Your task to perform on an android device: Go to CNN.com Image 0: 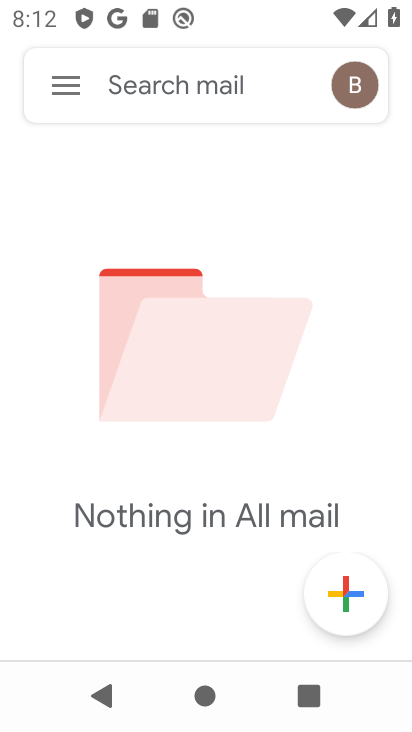
Step 0: press back button
Your task to perform on an android device: Go to CNN.com Image 1: 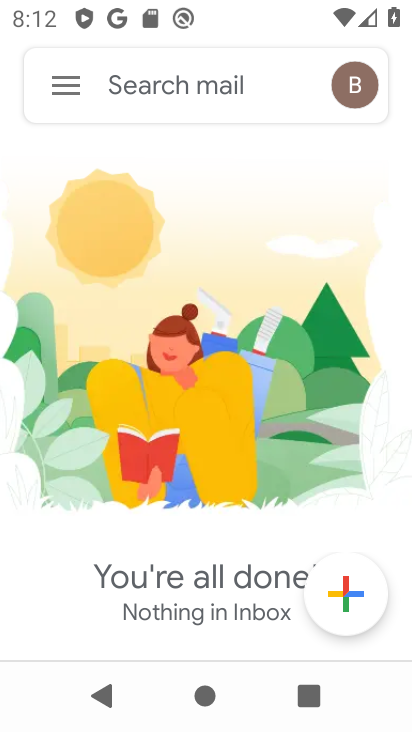
Step 1: press back button
Your task to perform on an android device: Go to CNN.com Image 2: 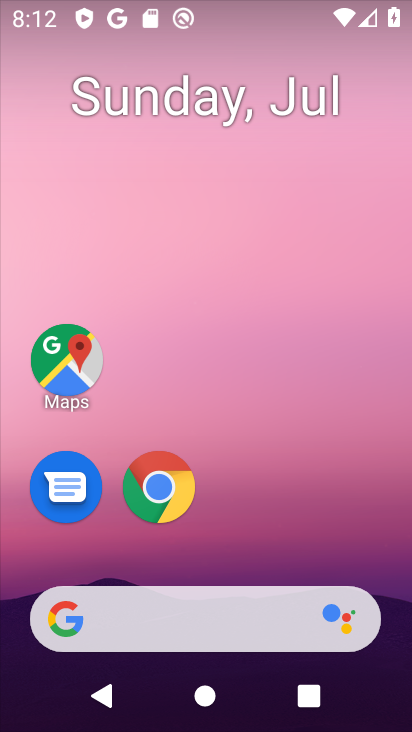
Step 2: click (153, 491)
Your task to perform on an android device: Go to CNN.com Image 3: 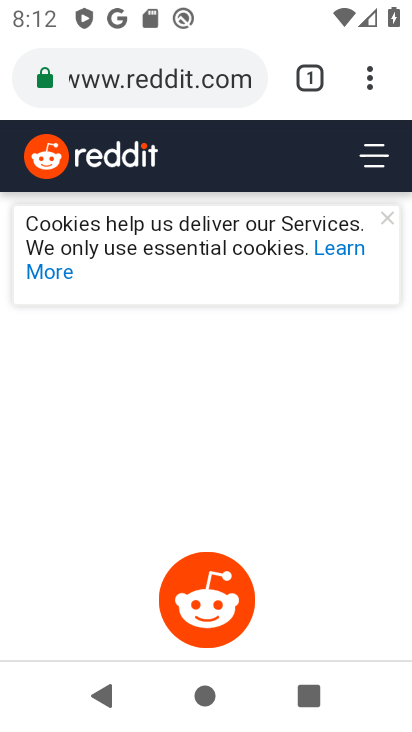
Step 3: click (307, 84)
Your task to perform on an android device: Go to CNN.com Image 4: 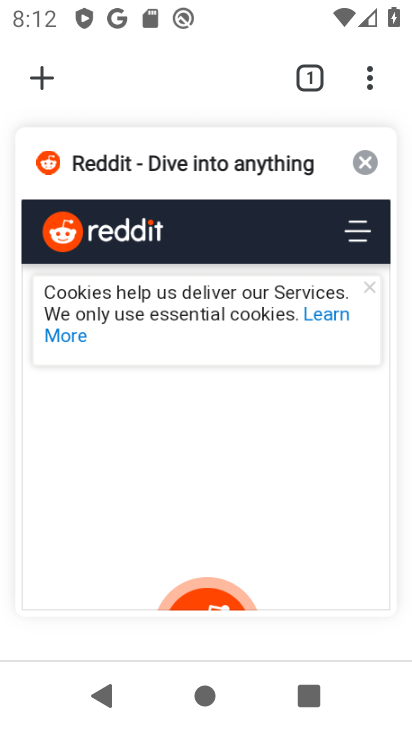
Step 4: click (43, 68)
Your task to perform on an android device: Go to CNN.com Image 5: 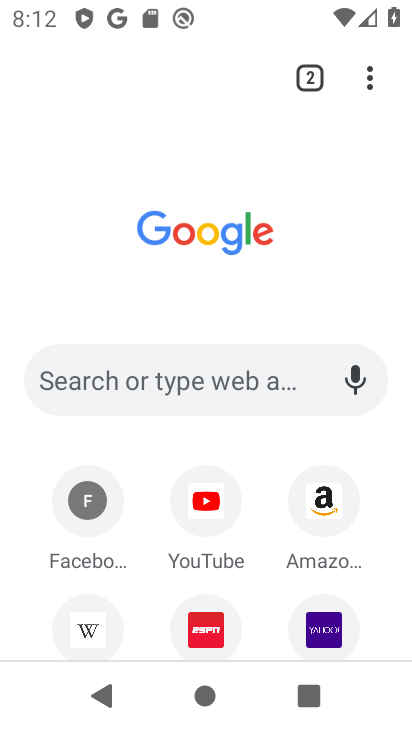
Step 5: click (139, 361)
Your task to perform on an android device: Go to CNN.com Image 6: 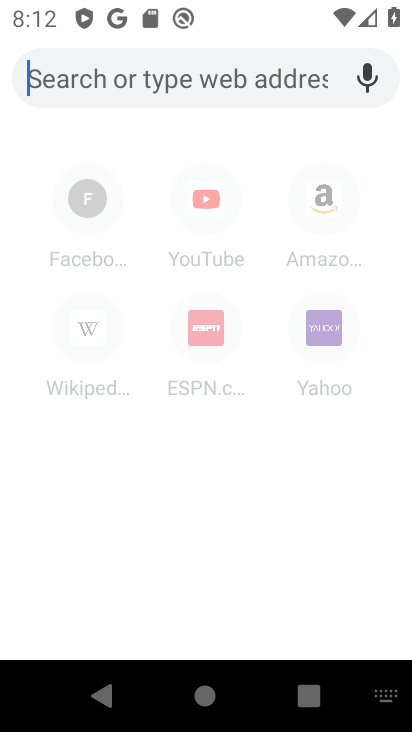
Step 6: type "cnn.com"
Your task to perform on an android device: Go to CNN.com Image 7: 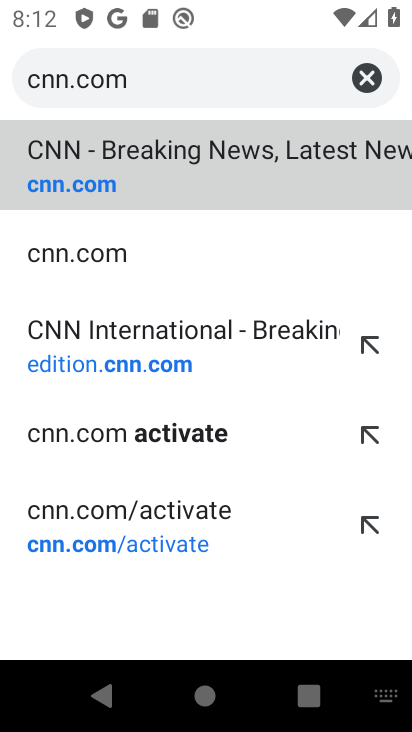
Step 7: click (197, 154)
Your task to perform on an android device: Go to CNN.com Image 8: 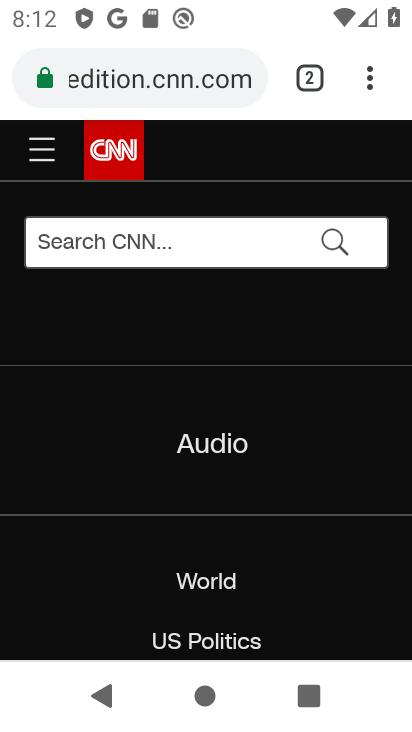
Step 8: task complete